Your task to perform on an android device: set default search engine in the chrome app Image 0: 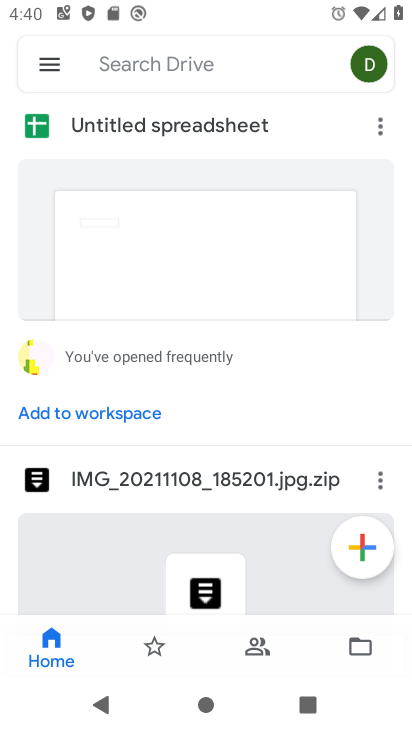
Step 0: press home button
Your task to perform on an android device: set default search engine in the chrome app Image 1: 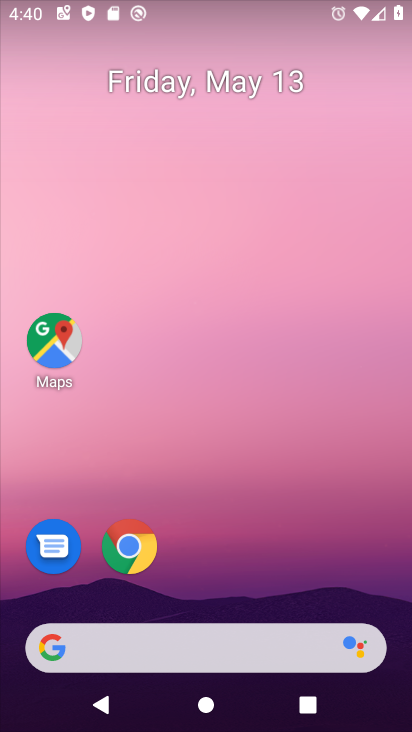
Step 1: click (143, 556)
Your task to perform on an android device: set default search engine in the chrome app Image 2: 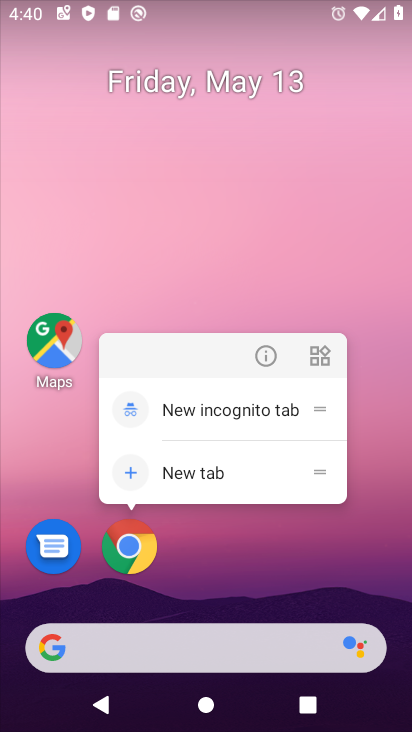
Step 2: click (129, 536)
Your task to perform on an android device: set default search engine in the chrome app Image 3: 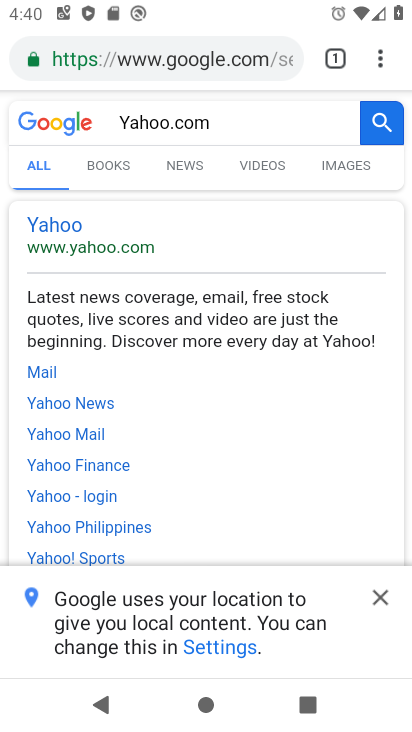
Step 3: click (389, 592)
Your task to perform on an android device: set default search engine in the chrome app Image 4: 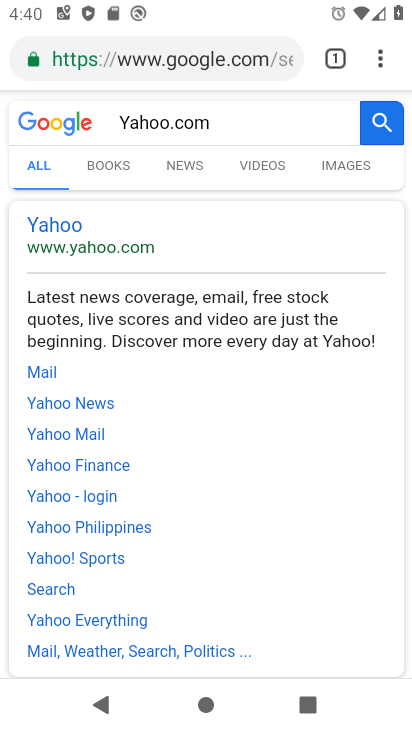
Step 4: click (384, 59)
Your task to perform on an android device: set default search engine in the chrome app Image 5: 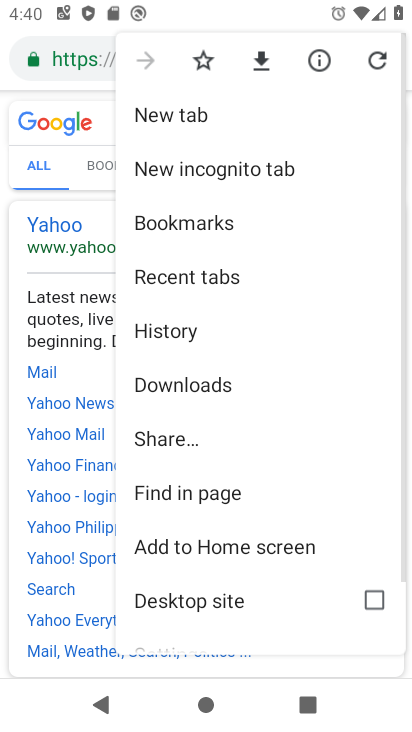
Step 5: drag from (230, 556) to (277, 191)
Your task to perform on an android device: set default search engine in the chrome app Image 6: 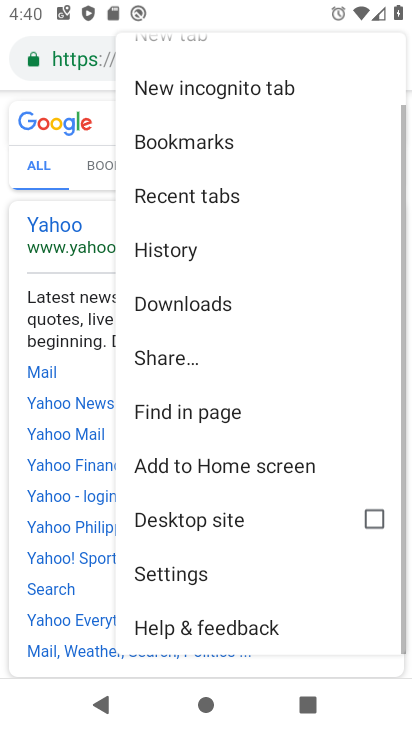
Step 6: click (173, 578)
Your task to perform on an android device: set default search engine in the chrome app Image 7: 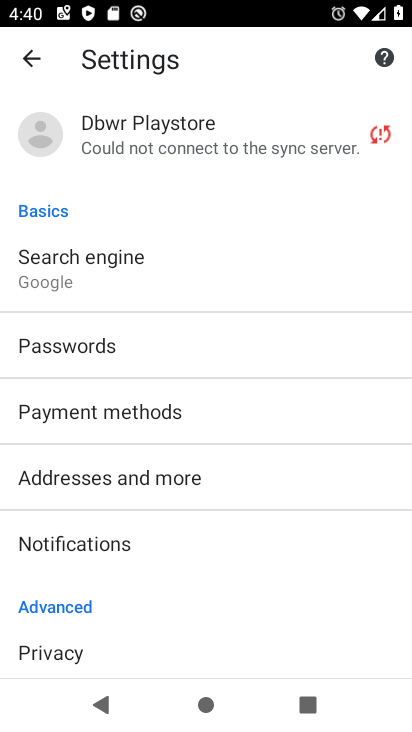
Step 7: drag from (117, 576) to (162, 375)
Your task to perform on an android device: set default search engine in the chrome app Image 8: 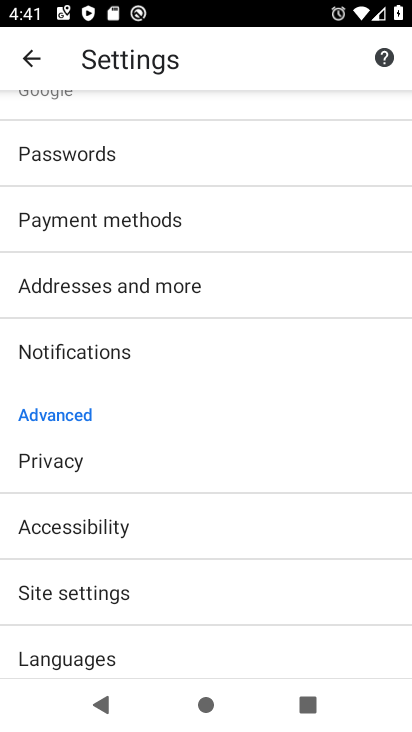
Step 8: drag from (113, 226) to (61, 712)
Your task to perform on an android device: set default search engine in the chrome app Image 9: 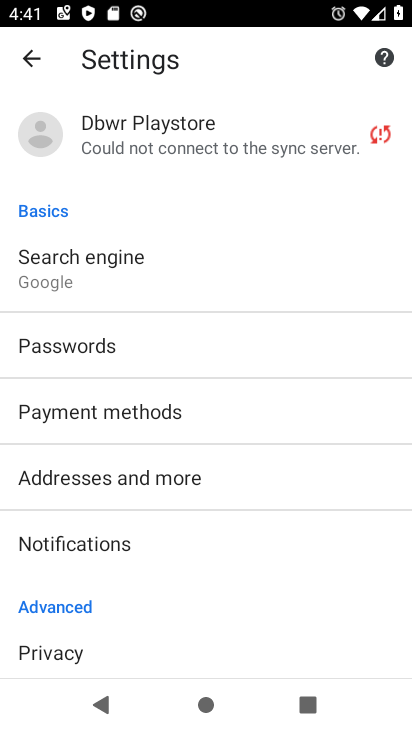
Step 9: click (96, 269)
Your task to perform on an android device: set default search engine in the chrome app Image 10: 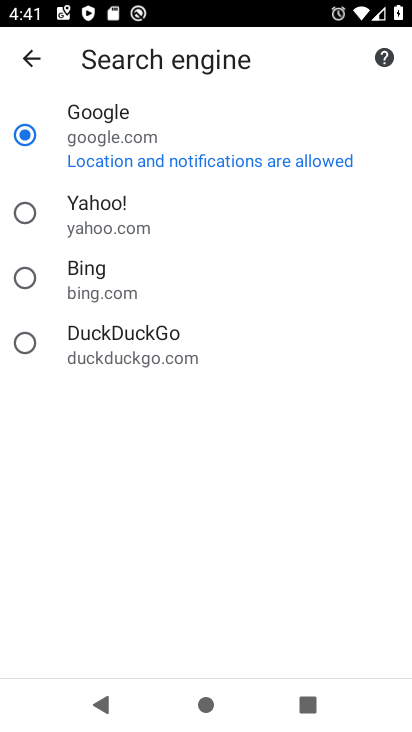
Step 10: task complete